Your task to perform on an android device: turn vacation reply on in the gmail app Image 0: 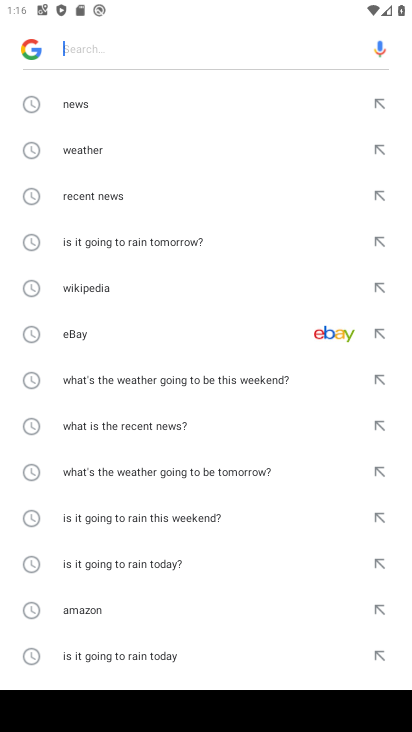
Step 0: press home button
Your task to perform on an android device: turn vacation reply on in the gmail app Image 1: 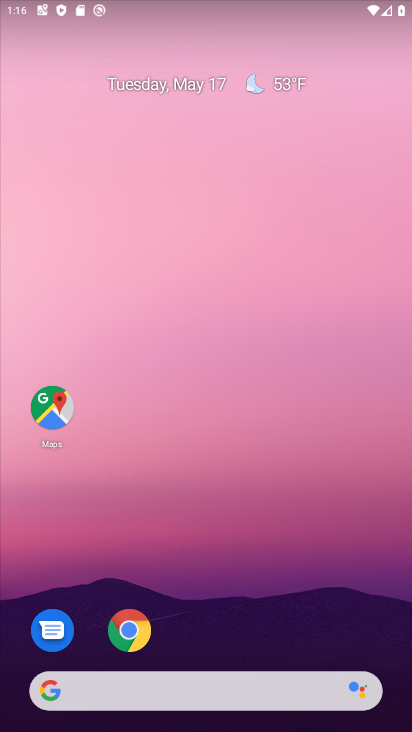
Step 1: drag from (205, 662) to (231, 231)
Your task to perform on an android device: turn vacation reply on in the gmail app Image 2: 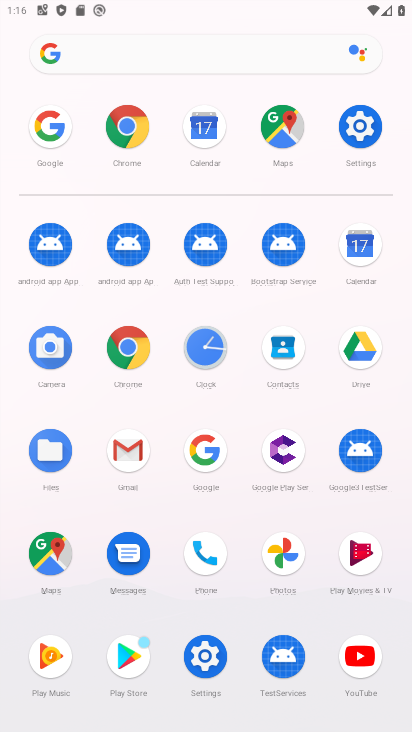
Step 2: click (123, 454)
Your task to perform on an android device: turn vacation reply on in the gmail app Image 3: 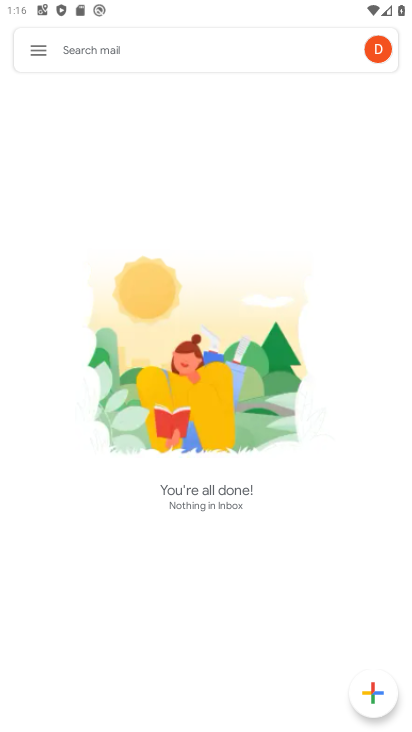
Step 3: click (33, 52)
Your task to perform on an android device: turn vacation reply on in the gmail app Image 4: 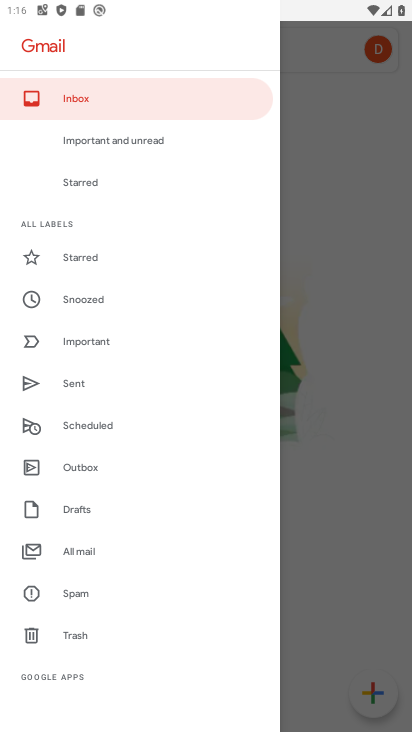
Step 4: drag from (97, 510) to (94, 261)
Your task to perform on an android device: turn vacation reply on in the gmail app Image 5: 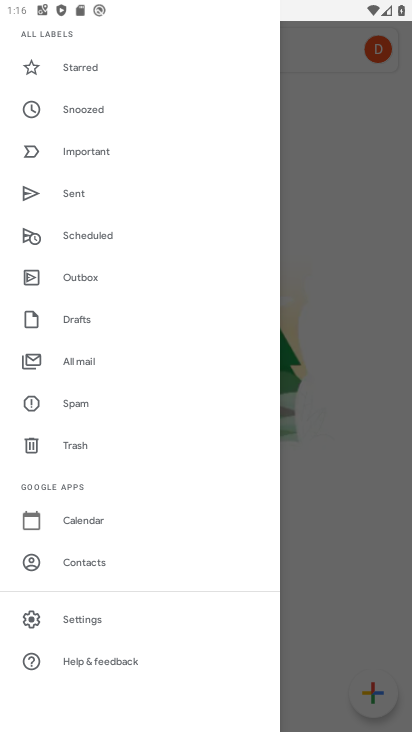
Step 5: click (72, 633)
Your task to perform on an android device: turn vacation reply on in the gmail app Image 6: 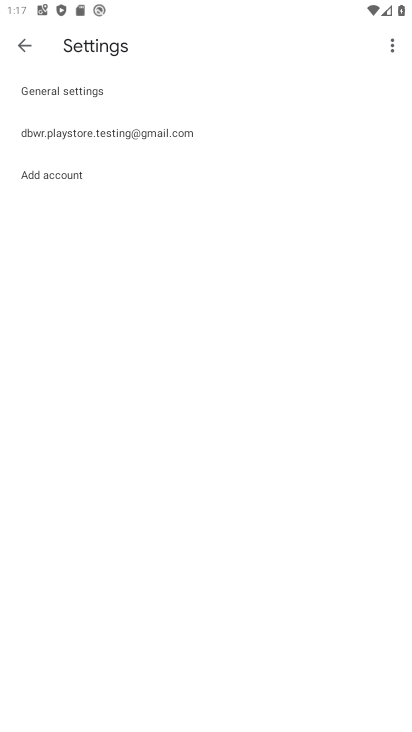
Step 6: click (98, 145)
Your task to perform on an android device: turn vacation reply on in the gmail app Image 7: 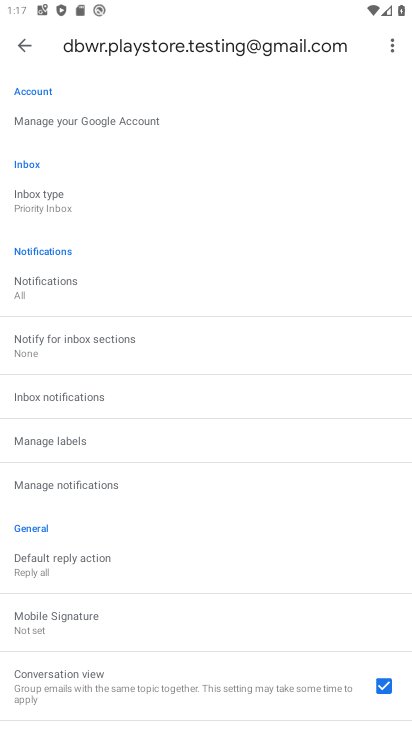
Step 7: drag from (140, 588) to (166, 179)
Your task to perform on an android device: turn vacation reply on in the gmail app Image 8: 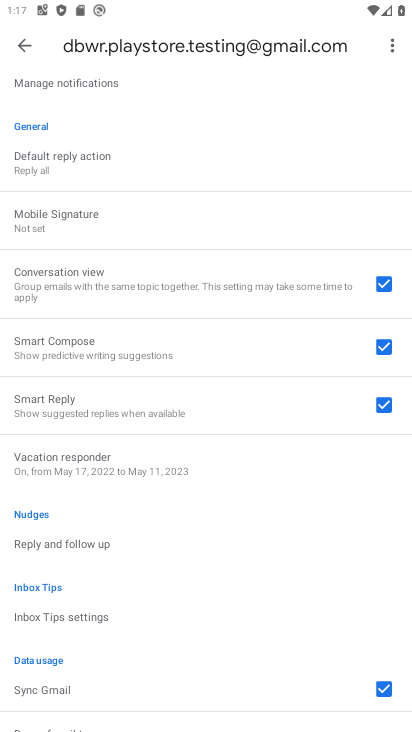
Step 8: click (192, 473)
Your task to perform on an android device: turn vacation reply on in the gmail app Image 9: 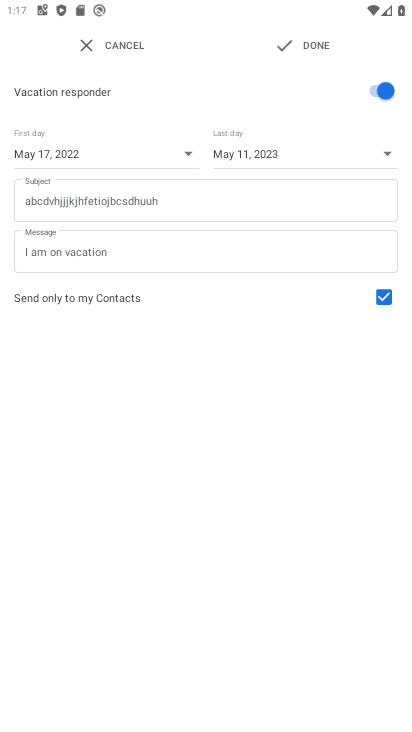
Step 9: task complete